Your task to perform on an android device: Open the phone app and click the voicemail tab. Image 0: 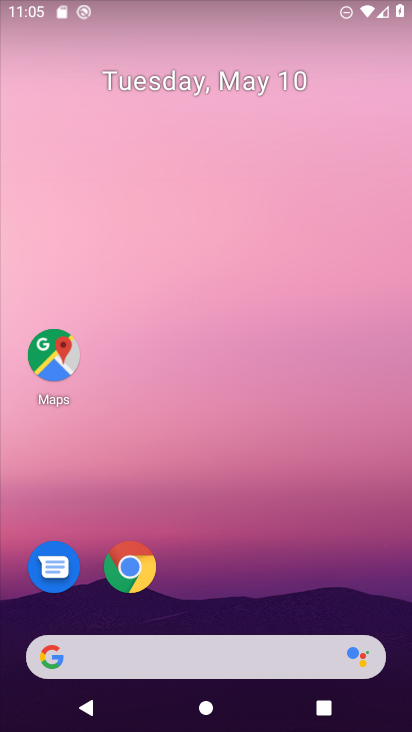
Step 0: drag from (299, 562) to (291, 154)
Your task to perform on an android device: Open the phone app and click the voicemail tab. Image 1: 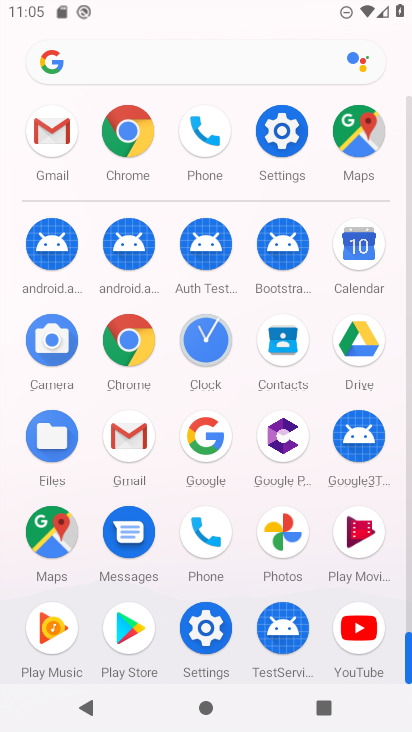
Step 1: click (195, 518)
Your task to perform on an android device: Open the phone app and click the voicemail tab. Image 2: 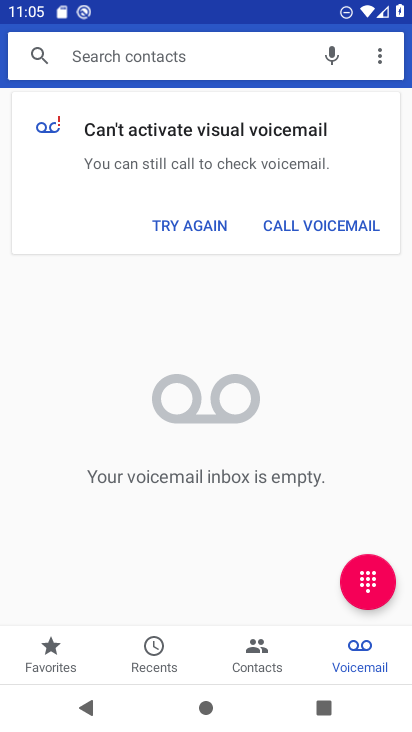
Step 2: click (370, 658)
Your task to perform on an android device: Open the phone app and click the voicemail tab. Image 3: 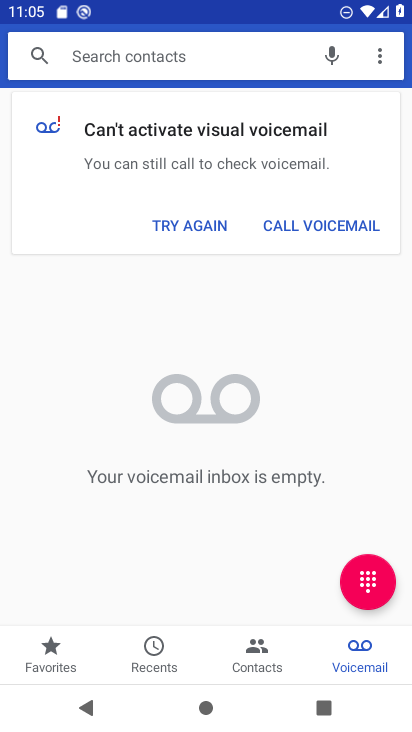
Step 3: task complete